Your task to perform on an android device: change keyboard looks Image 0: 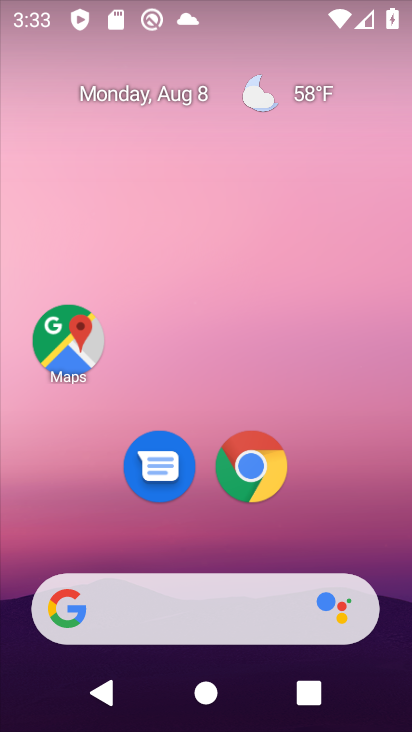
Step 0: drag from (167, 562) to (195, 192)
Your task to perform on an android device: change keyboard looks Image 1: 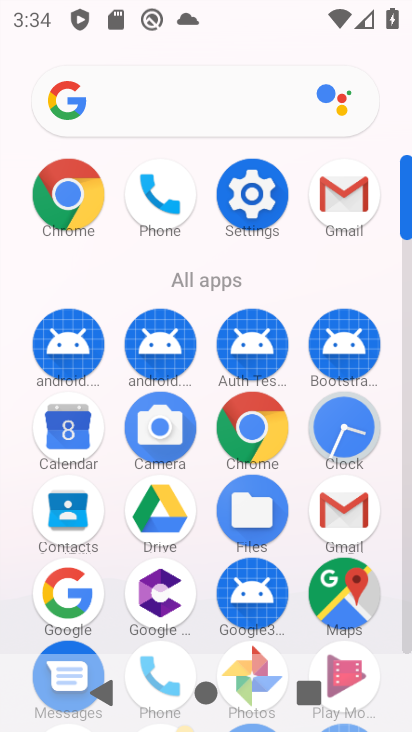
Step 1: click (255, 208)
Your task to perform on an android device: change keyboard looks Image 2: 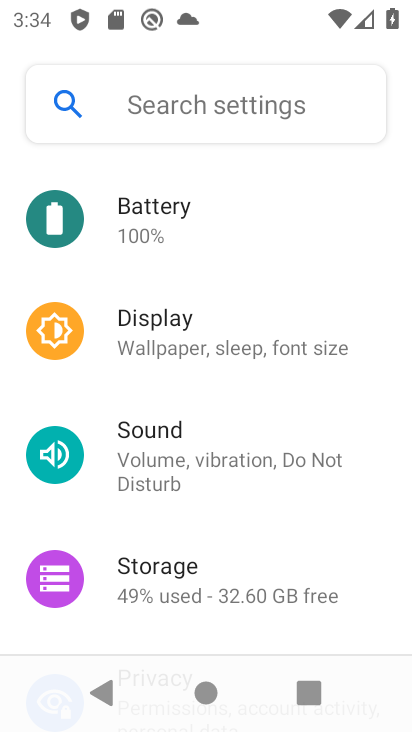
Step 2: drag from (213, 555) to (215, 147)
Your task to perform on an android device: change keyboard looks Image 3: 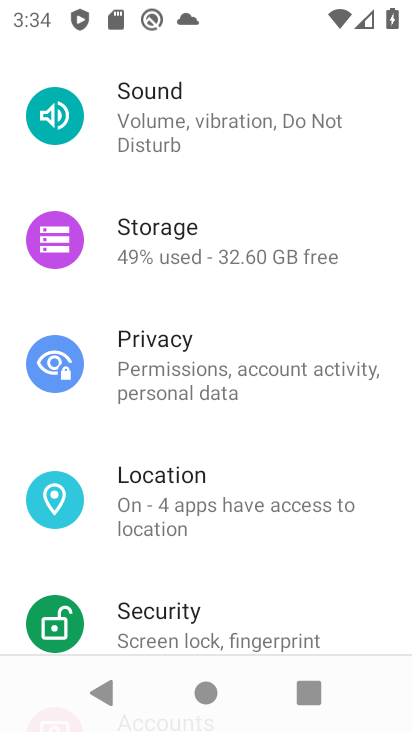
Step 3: drag from (237, 519) to (265, 130)
Your task to perform on an android device: change keyboard looks Image 4: 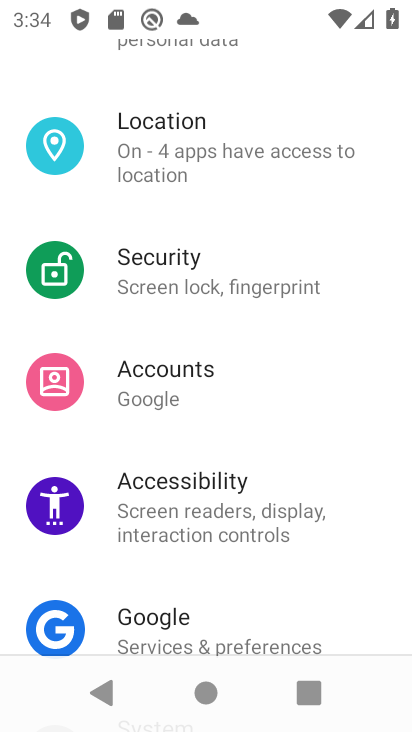
Step 4: drag from (217, 553) to (260, 214)
Your task to perform on an android device: change keyboard looks Image 5: 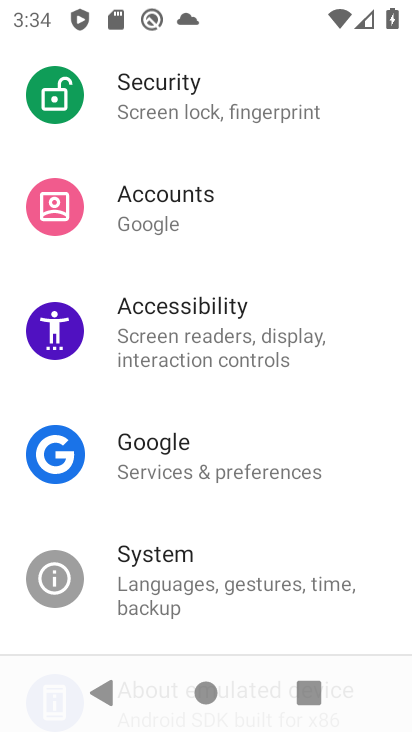
Step 5: click (242, 330)
Your task to perform on an android device: change keyboard looks Image 6: 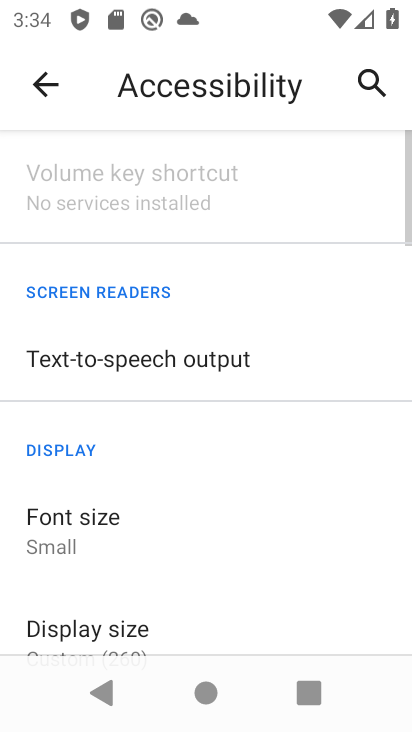
Step 6: click (154, 348)
Your task to perform on an android device: change keyboard looks Image 7: 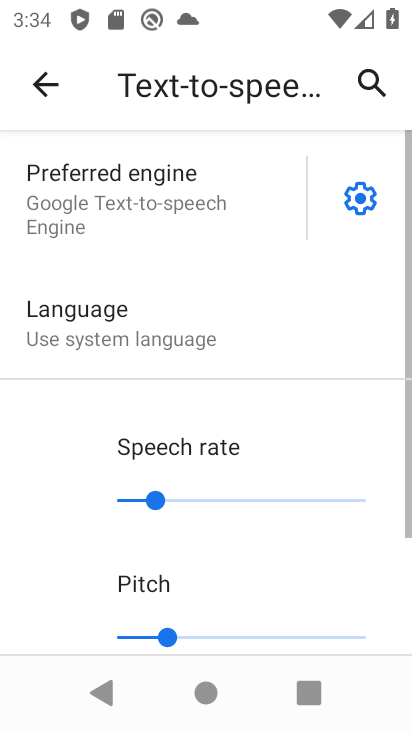
Step 7: click (47, 99)
Your task to perform on an android device: change keyboard looks Image 8: 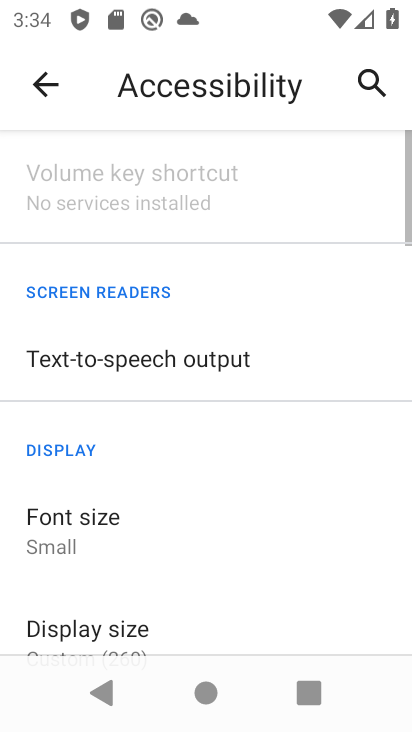
Step 8: click (47, 99)
Your task to perform on an android device: change keyboard looks Image 9: 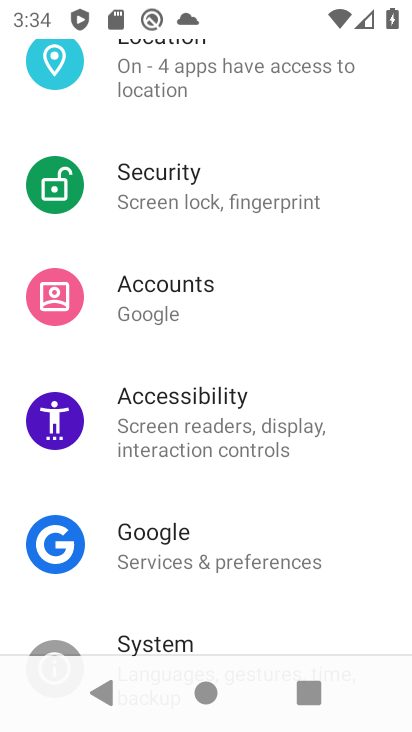
Step 9: drag from (185, 487) to (216, 193)
Your task to perform on an android device: change keyboard looks Image 10: 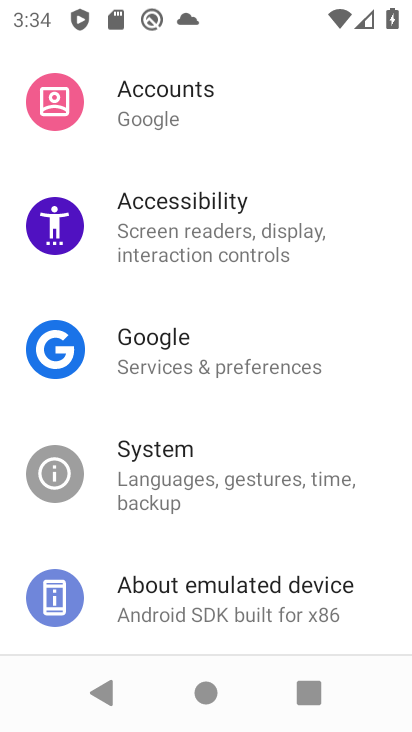
Step 10: click (184, 228)
Your task to perform on an android device: change keyboard looks Image 11: 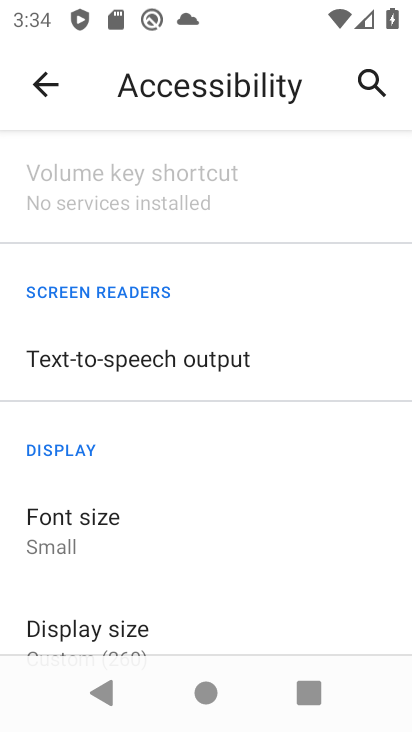
Step 11: click (34, 95)
Your task to perform on an android device: change keyboard looks Image 12: 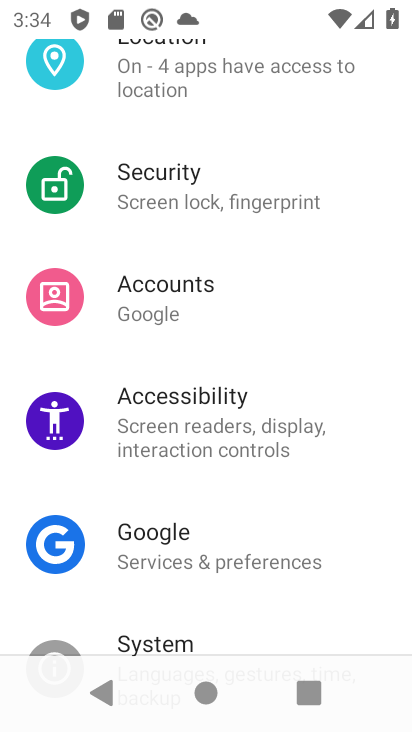
Step 12: drag from (187, 599) to (231, 306)
Your task to perform on an android device: change keyboard looks Image 13: 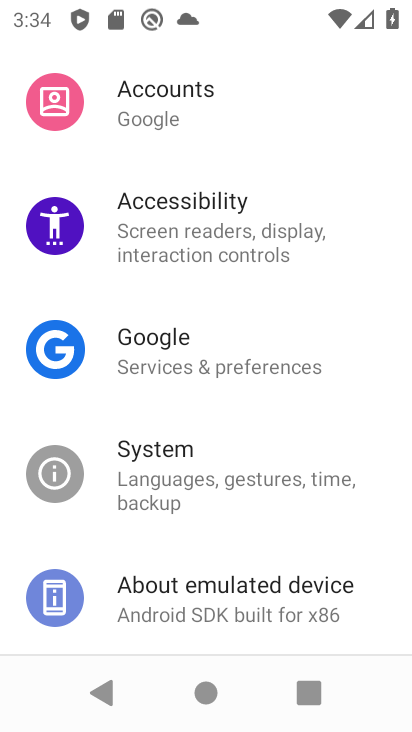
Step 13: click (118, 464)
Your task to perform on an android device: change keyboard looks Image 14: 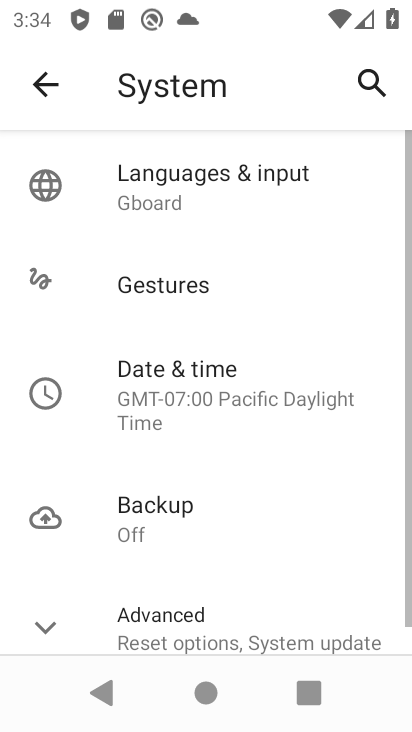
Step 14: click (169, 232)
Your task to perform on an android device: change keyboard looks Image 15: 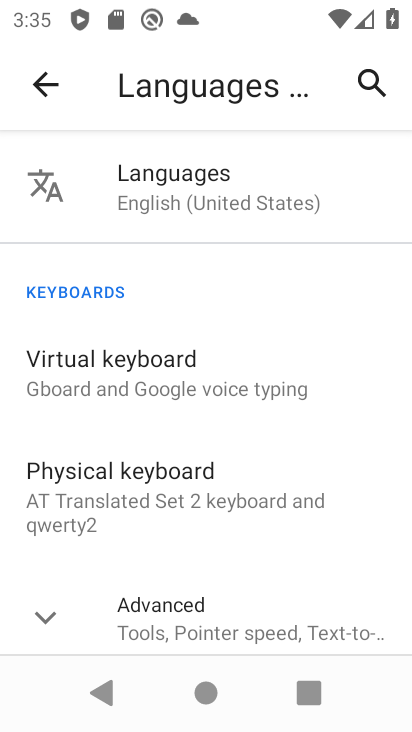
Step 15: click (176, 353)
Your task to perform on an android device: change keyboard looks Image 16: 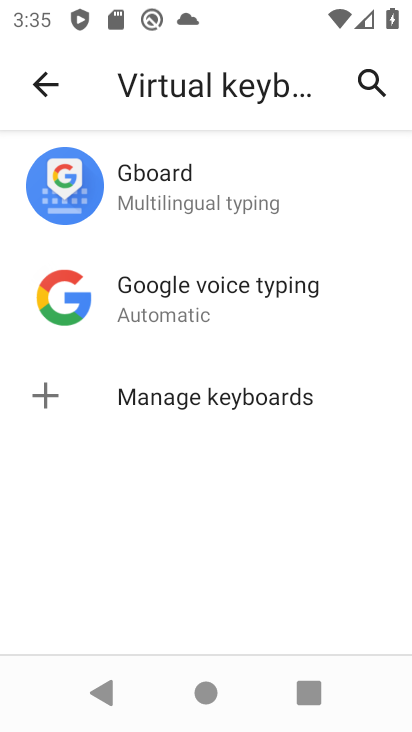
Step 16: click (160, 196)
Your task to perform on an android device: change keyboard looks Image 17: 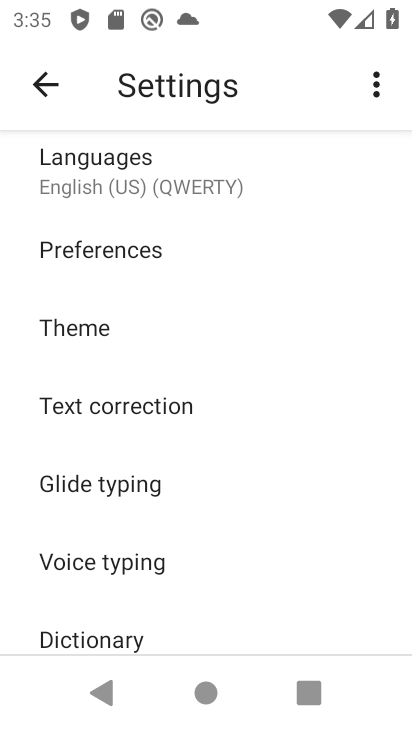
Step 17: click (116, 319)
Your task to perform on an android device: change keyboard looks Image 18: 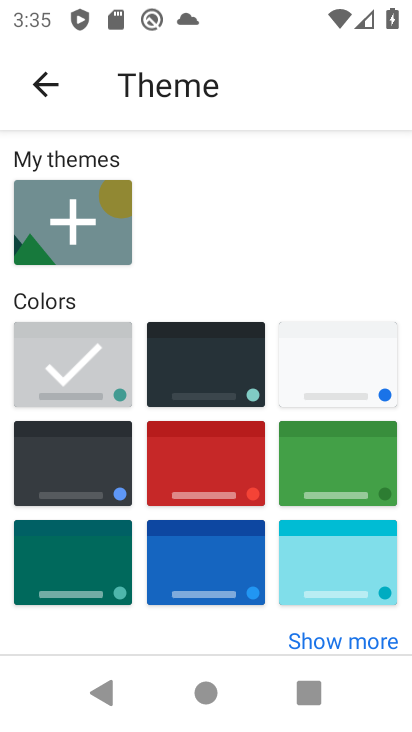
Step 18: click (213, 538)
Your task to perform on an android device: change keyboard looks Image 19: 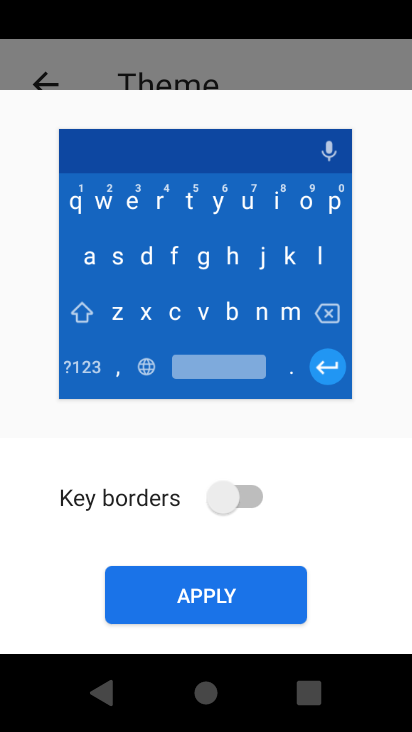
Step 19: click (240, 587)
Your task to perform on an android device: change keyboard looks Image 20: 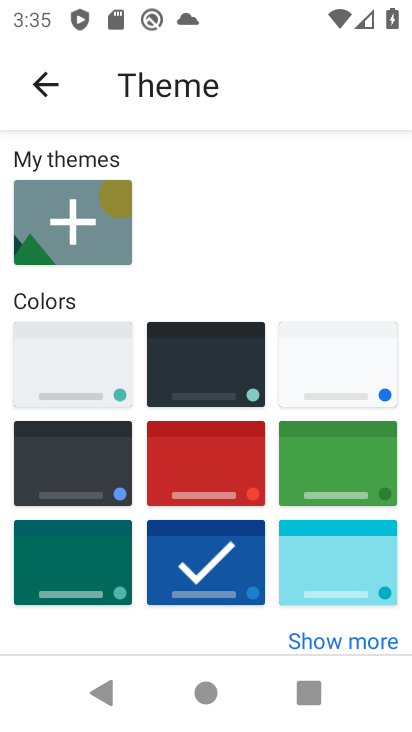
Step 20: task complete